Your task to perform on an android device: turn on javascript in the chrome app Image 0: 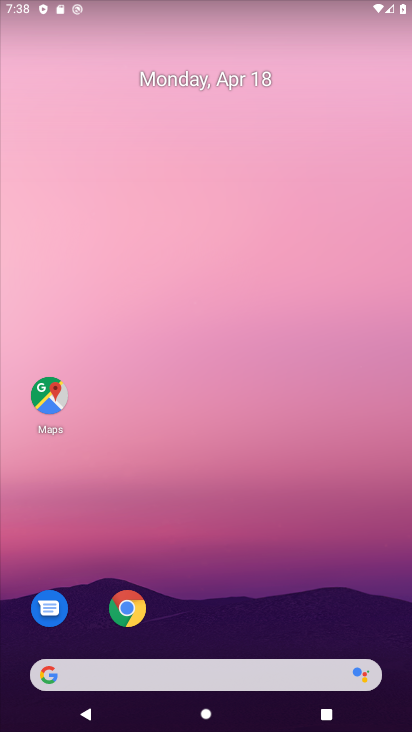
Step 0: click (134, 608)
Your task to perform on an android device: turn on javascript in the chrome app Image 1: 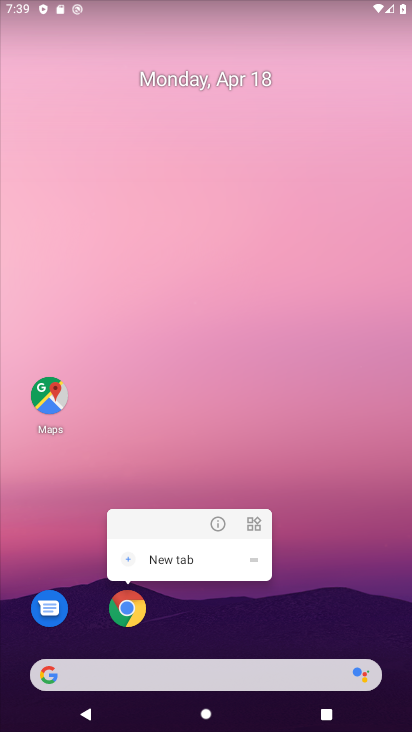
Step 1: click (133, 612)
Your task to perform on an android device: turn on javascript in the chrome app Image 2: 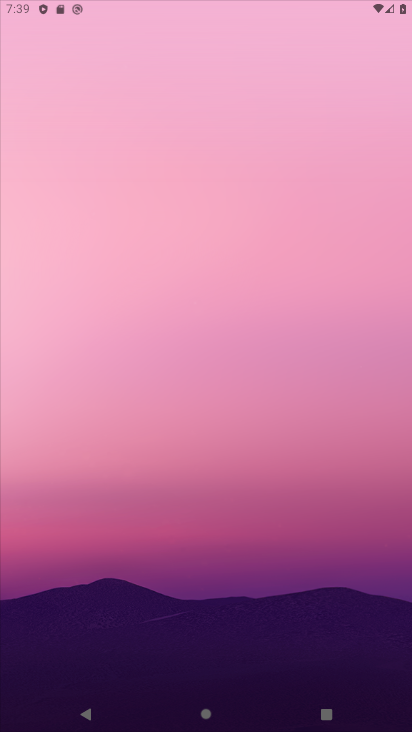
Step 2: click (133, 612)
Your task to perform on an android device: turn on javascript in the chrome app Image 3: 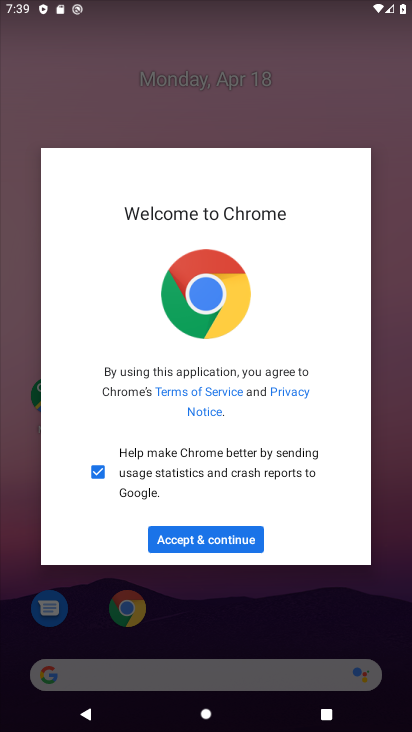
Step 3: click (190, 547)
Your task to perform on an android device: turn on javascript in the chrome app Image 4: 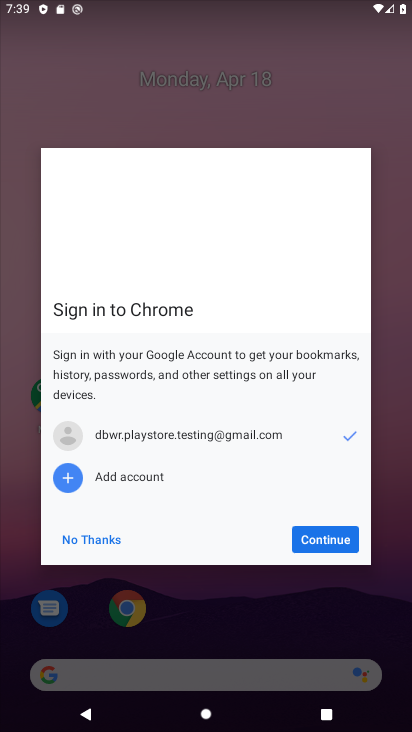
Step 4: click (328, 543)
Your task to perform on an android device: turn on javascript in the chrome app Image 5: 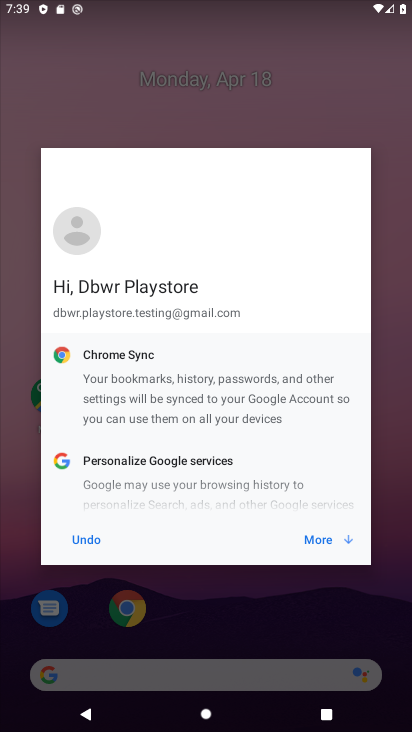
Step 5: click (320, 535)
Your task to perform on an android device: turn on javascript in the chrome app Image 6: 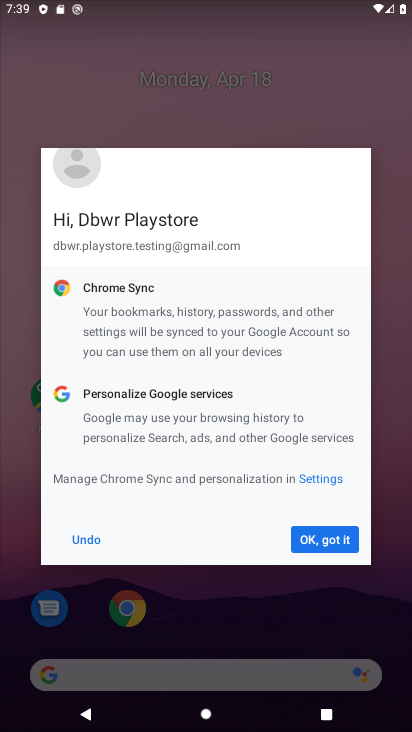
Step 6: click (320, 535)
Your task to perform on an android device: turn on javascript in the chrome app Image 7: 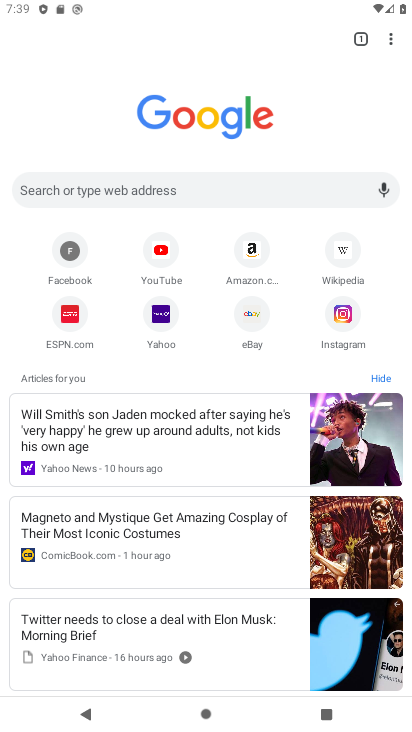
Step 7: click (389, 42)
Your task to perform on an android device: turn on javascript in the chrome app Image 8: 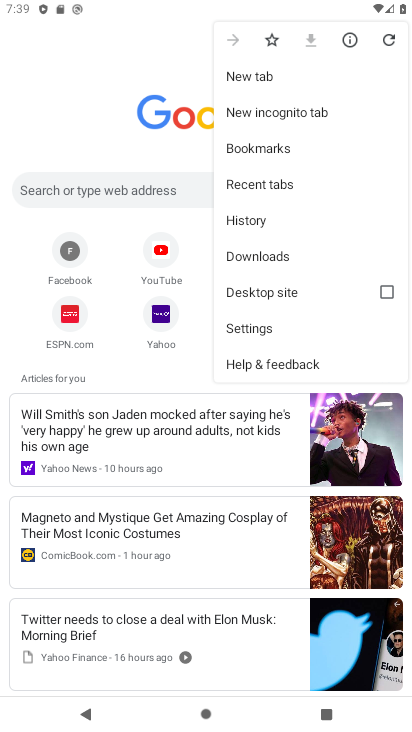
Step 8: click (269, 330)
Your task to perform on an android device: turn on javascript in the chrome app Image 9: 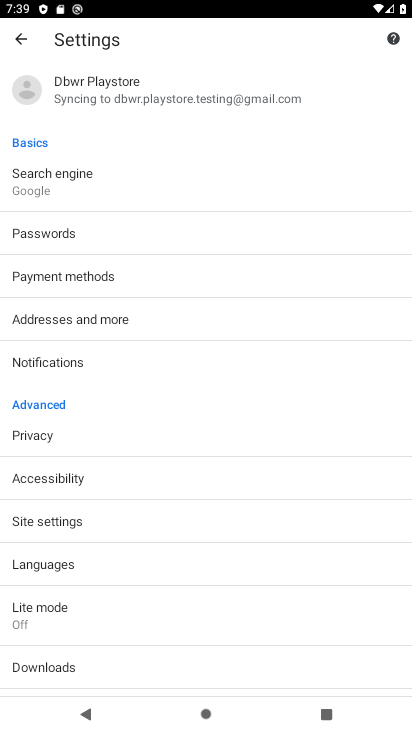
Step 9: click (67, 519)
Your task to perform on an android device: turn on javascript in the chrome app Image 10: 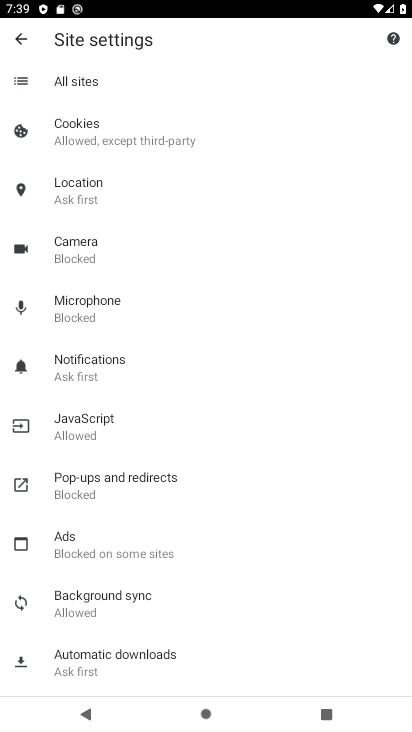
Step 10: click (79, 422)
Your task to perform on an android device: turn on javascript in the chrome app Image 11: 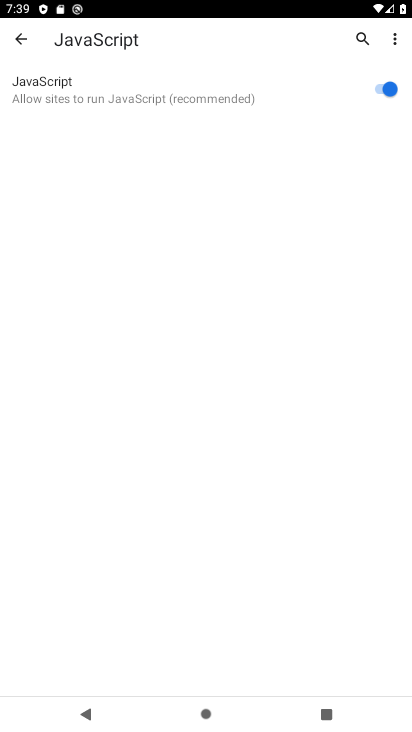
Step 11: task complete